Your task to perform on an android device: open the mobile data screen to see how much data has been used Image 0: 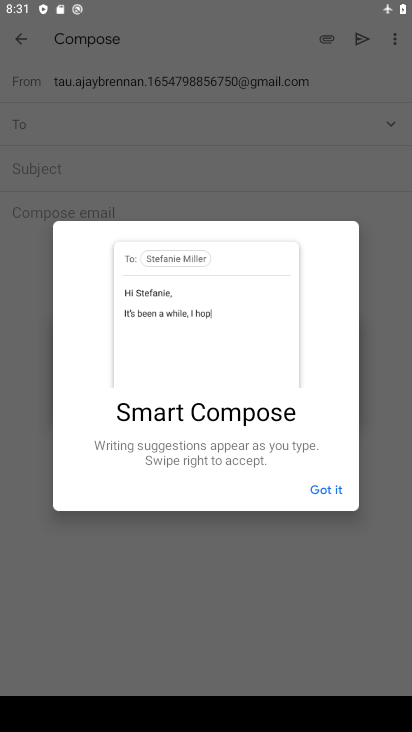
Step 0: press home button
Your task to perform on an android device: open the mobile data screen to see how much data has been used Image 1: 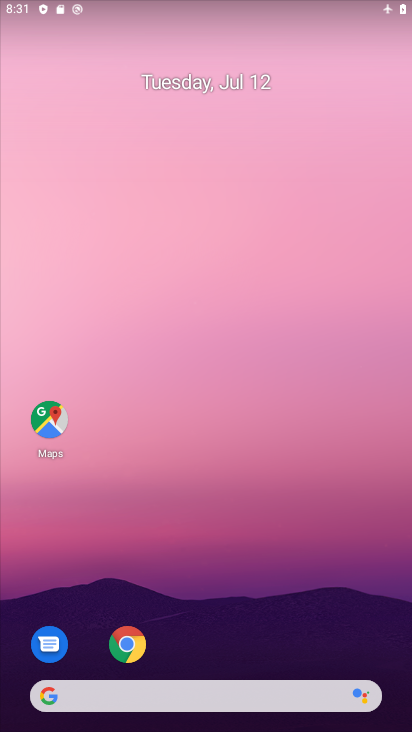
Step 1: drag from (198, 641) to (166, 193)
Your task to perform on an android device: open the mobile data screen to see how much data has been used Image 2: 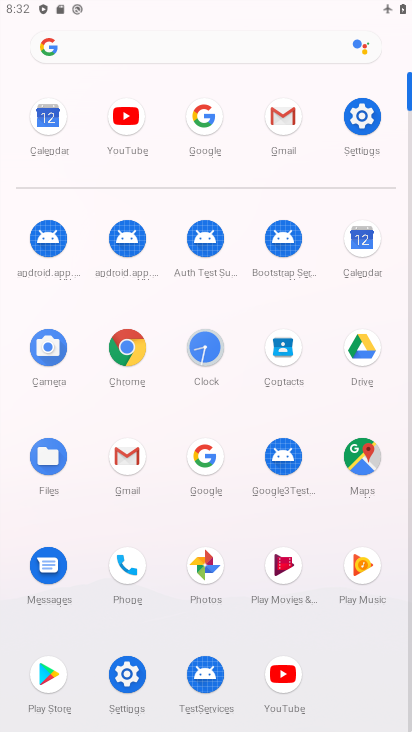
Step 2: click (381, 107)
Your task to perform on an android device: open the mobile data screen to see how much data has been used Image 3: 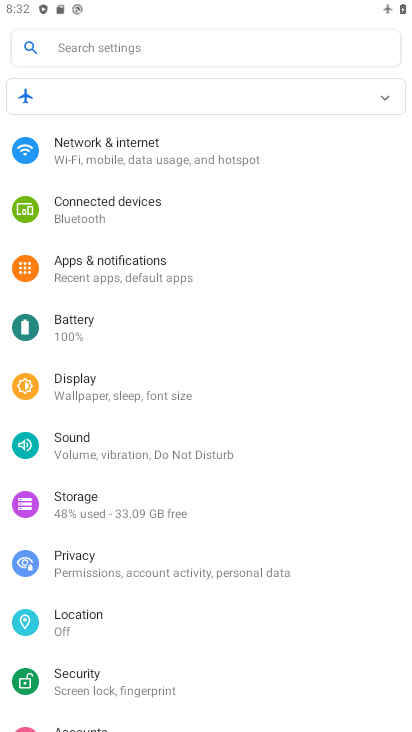
Step 3: click (154, 163)
Your task to perform on an android device: open the mobile data screen to see how much data has been used Image 4: 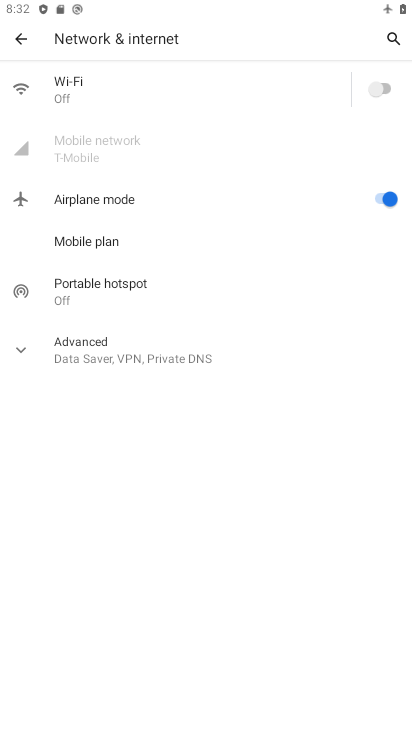
Step 4: click (131, 156)
Your task to perform on an android device: open the mobile data screen to see how much data has been used Image 5: 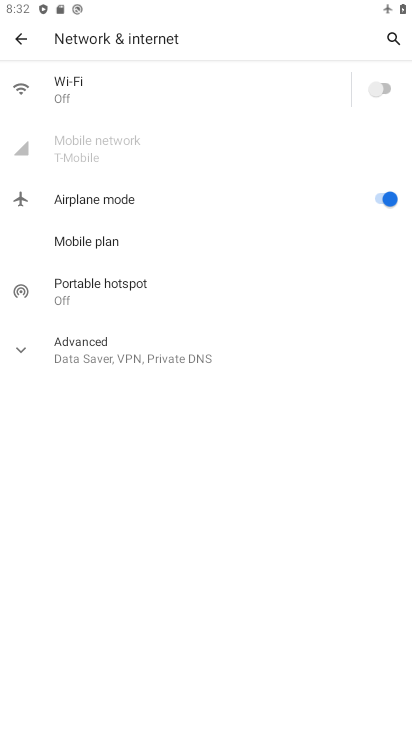
Step 5: task complete